Your task to perform on an android device: Open wifi settings Image 0: 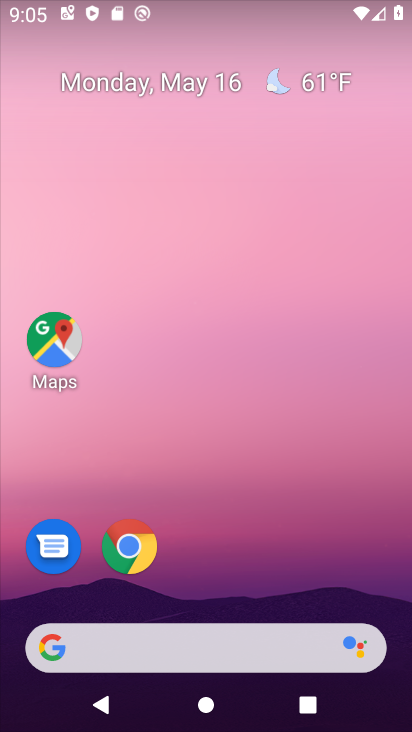
Step 0: drag from (219, 8) to (215, 487)
Your task to perform on an android device: Open wifi settings Image 1: 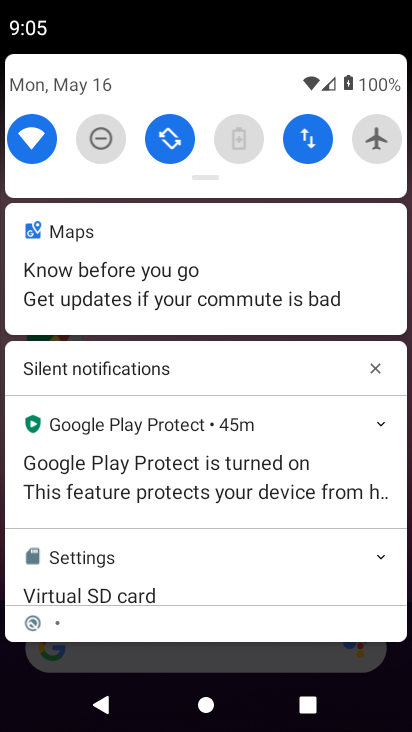
Step 1: click (24, 147)
Your task to perform on an android device: Open wifi settings Image 2: 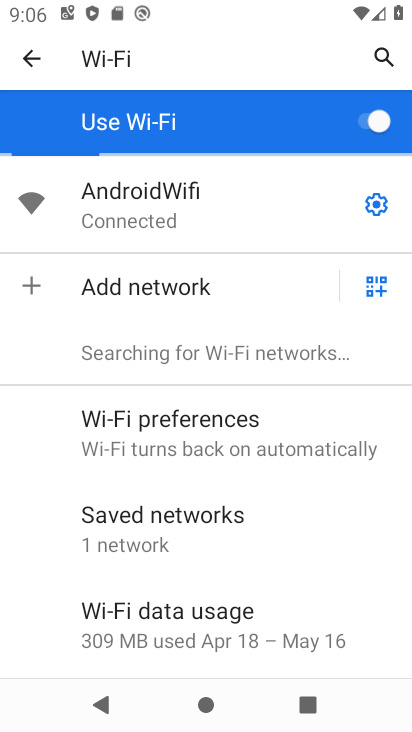
Step 2: task complete